Your task to perform on an android device: Open the Play Movies app and select the watchlist tab. Image 0: 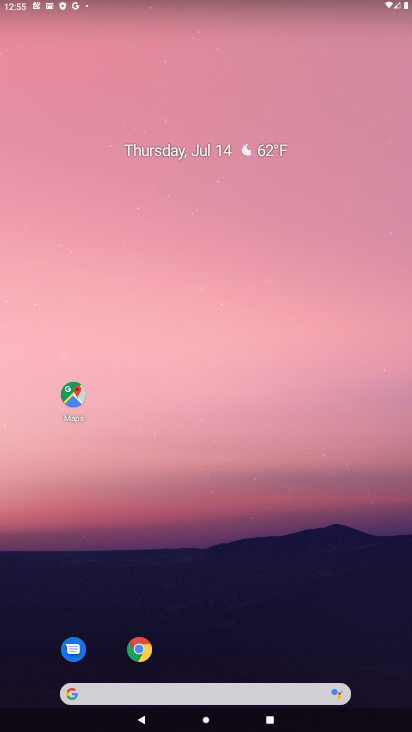
Step 0: drag from (370, 654) to (199, 5)
Your task to perform on an android device: Open the Play Movies app and select the watchlist tab. Image 1: 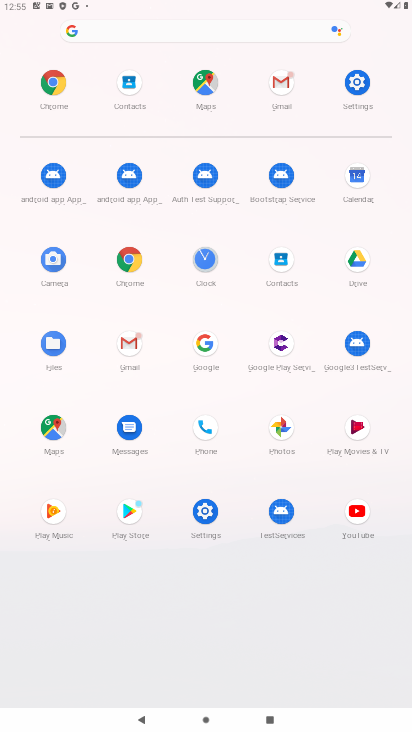
Step 1: click (359, 434)
Your task to perform on an android device: Open the Play Movies app and select the watchlist tab. Image 2: 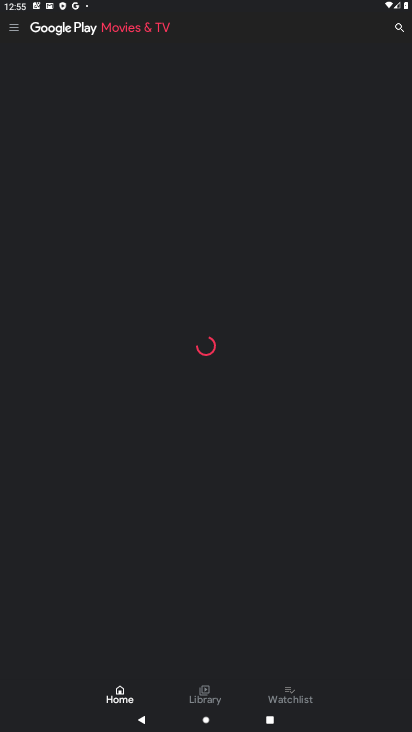
Step 2: click (296, 692)
Your task to perform on an android device: Open the Play Movies app and select the watchlist tab. Image 3: 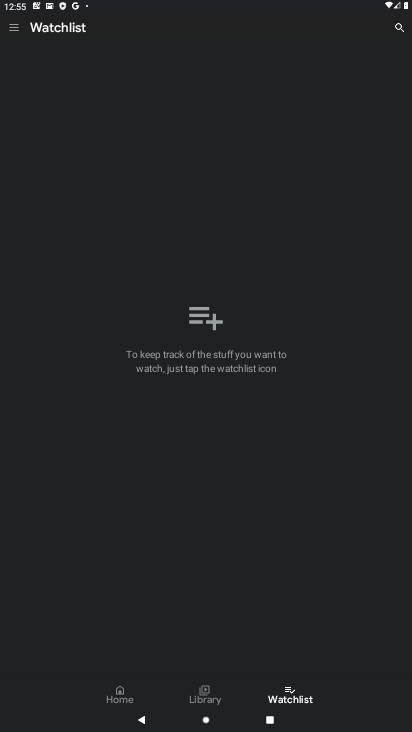
Step 3: task complete